Your task to perform on an android device: Open calendar and show me the first week of next month Image 0: 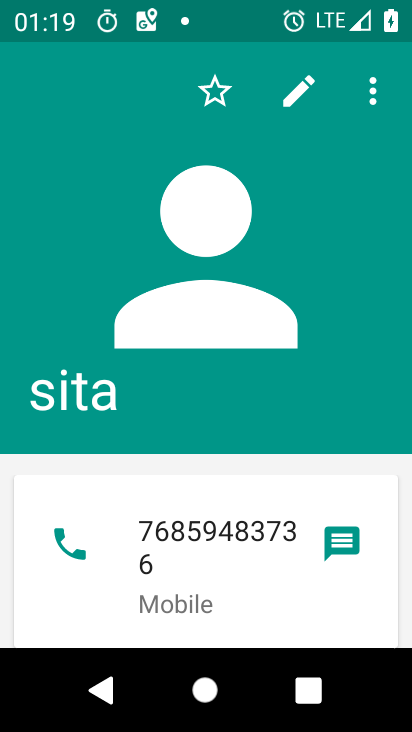
Step 0: press home button
Your task to perform on an android device: Open calendar and show me the first week of next month Image 1: 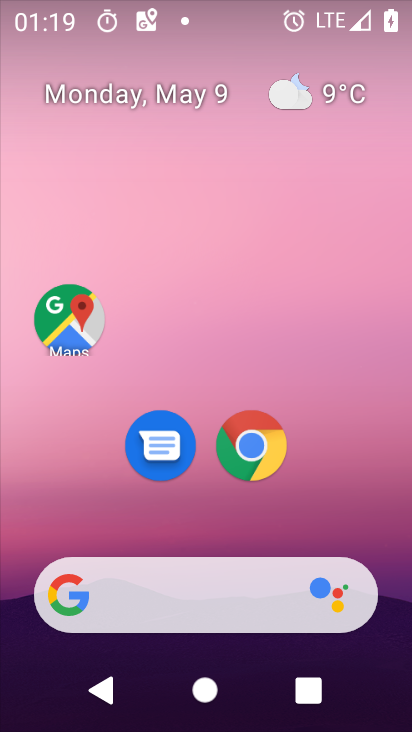
Step 1: drag from (350, 546) to (356, 10)
Your task to perform on an android device: Open calendar and show me the first week of next month Image 2: 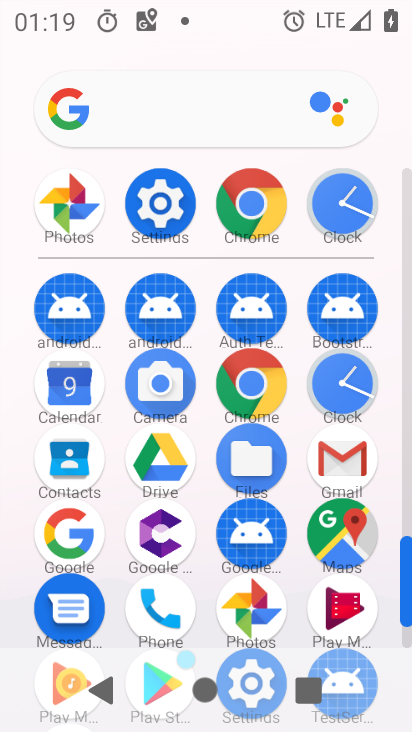
Step 2: click (66, 390)
Your task to perform on an android device: Open calendar and show me the first week of next month Image 3: 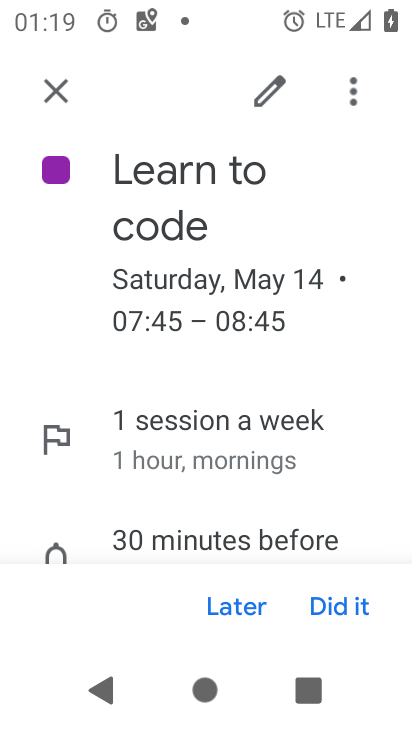
Step 3: click (57, 88)
Your task to perform on an android device: Open calendar and show me the first week of next month Image 4: 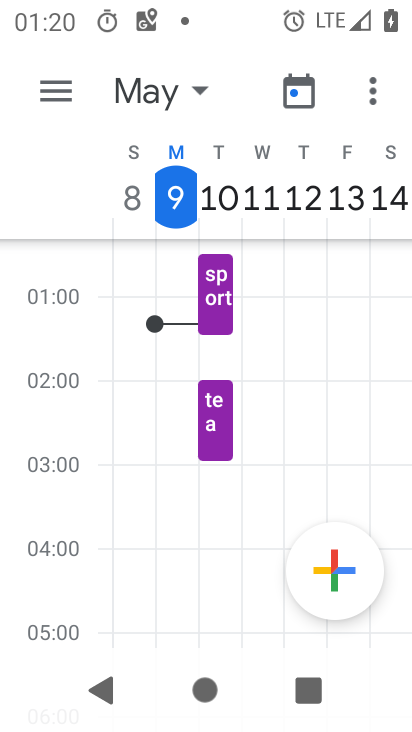
Step 4: click (201, 89)
Your task to perform on an android device: Open calendar and show me the first week of next month Image 5: 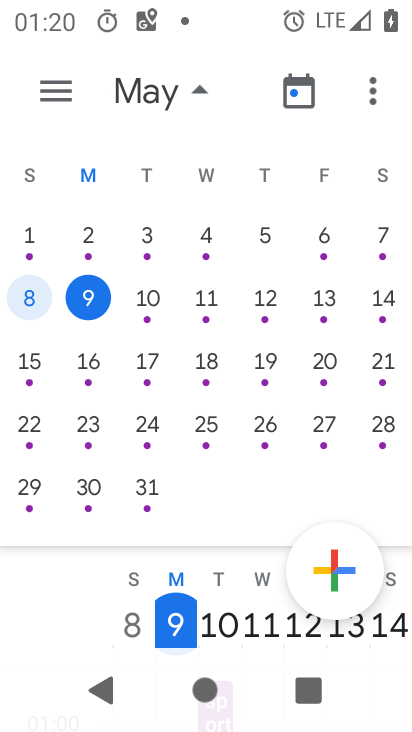
Step 5: drag from (305, 361) to (8, 444)
Your task to perform on an android device: Open calendar and show me the first week of next month Image 6: 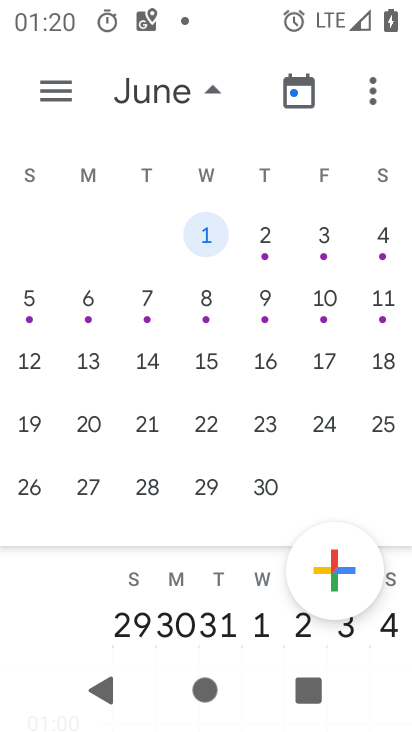
Step 6: click (34, 97)
Your task to perform on an android device: Open calendar and show me the first week of next month Image 7: 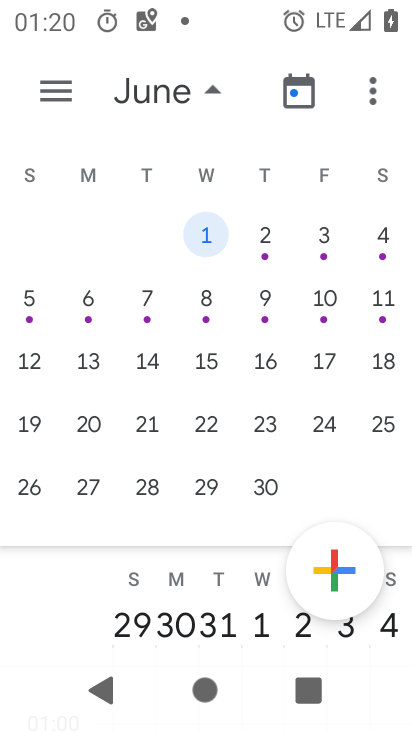
Step 7: click (61, 95)
Your task to perform on an android device: Open calendar and show me the first week of next month Image 8: 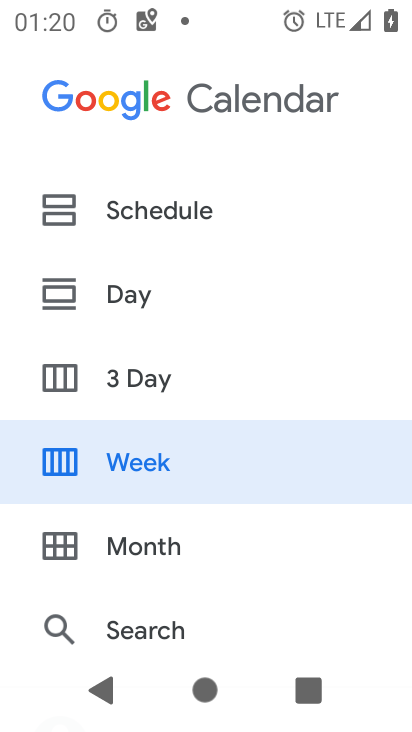
Step 8: click (115, 470)
Your task to perform on an android device: Open calendar and show me the first week of next month Image 9: 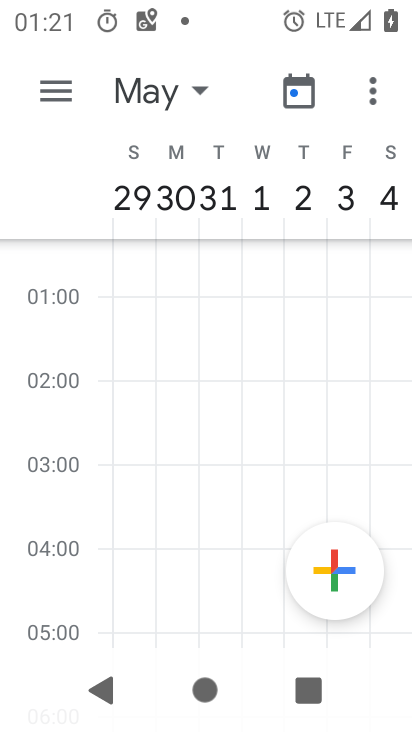
Step 9: task complete